Your task to perform on an android device: choose inbox layout in the gmail app Image 0: 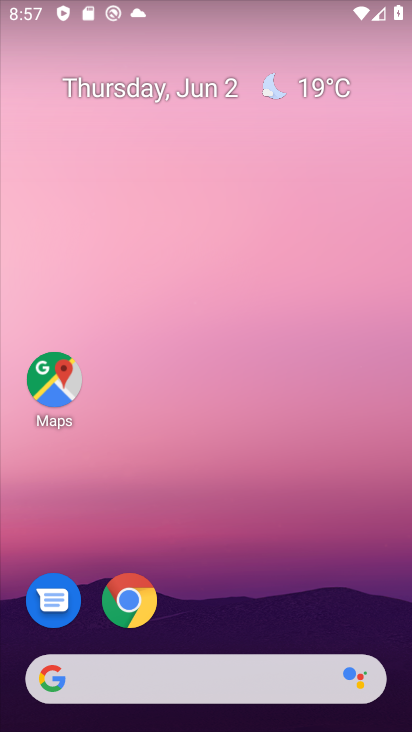
Step 0: drag from (216, 635) to (225, 250)
Your task to perform on an android device: choose inbox layout in the gmail app Image 1: 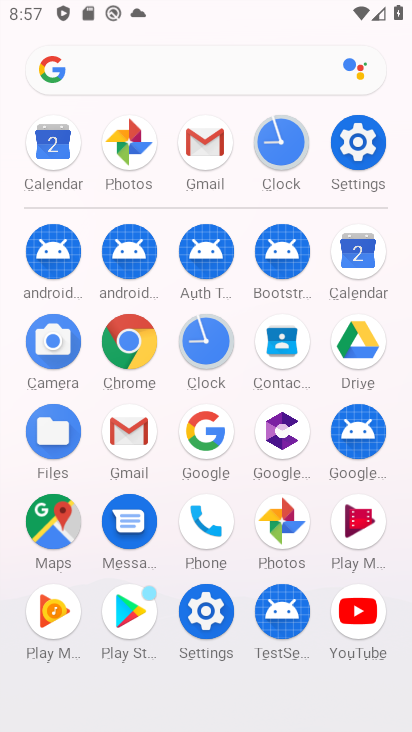
Step 1: click (201, 174)
Your task to perform on an android device: choose inbox layout in the gmail app Image 2: 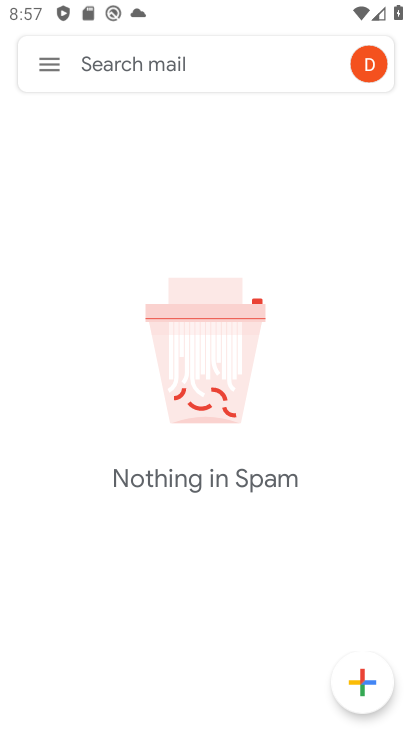
Step 2: click (60, 69)
Your task to perform on an android device: choose inbox layout in the gmail app Image 3: 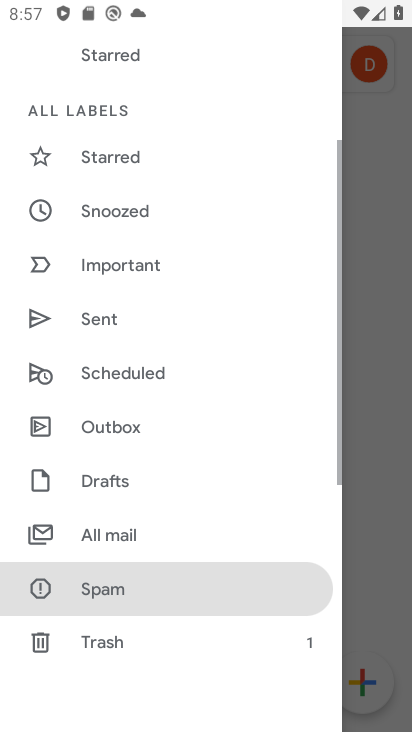
Step 3: drag from (161, 538) to (183, 254)
Your task to perform on an android device: choose inbox layout in the gmail app Image 4: 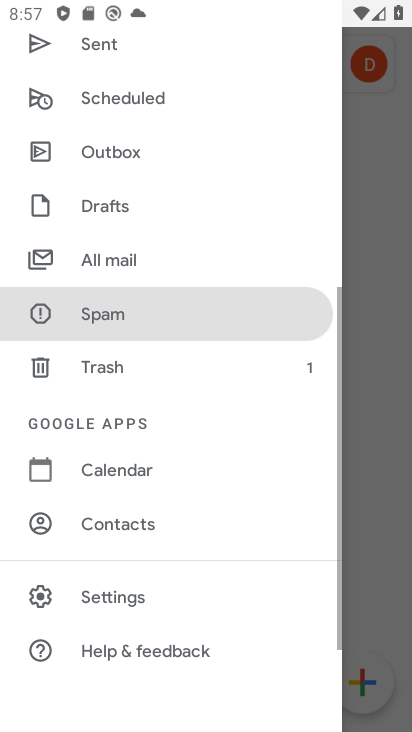
Step 4: click (183, 254)
Your task to perform on an android device: choose inbox layout in the gmail app Image 5: 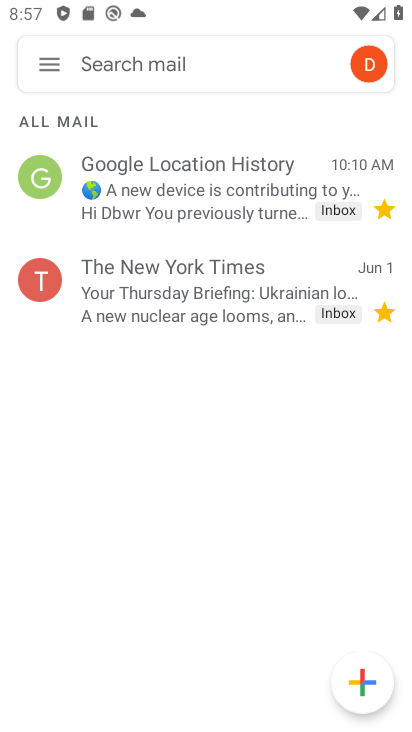
Step 5: click (43, 73)
Your task to perform on an android device: choose inbox layout in the gmail app Image 6: 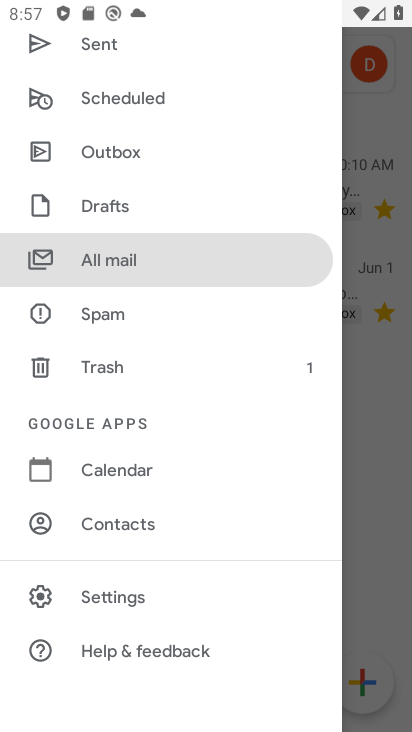
Step 6: click (158, 600)
Your task to perform on an android device: choose inbox layout in the gmail app Image 7: 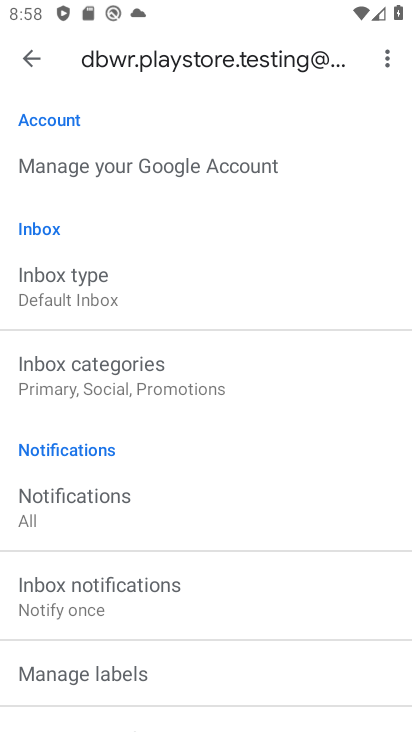
Step 7: click (170, 280)
Your task to perform on an android device: choose inbox layout in the gmail app Image 8: 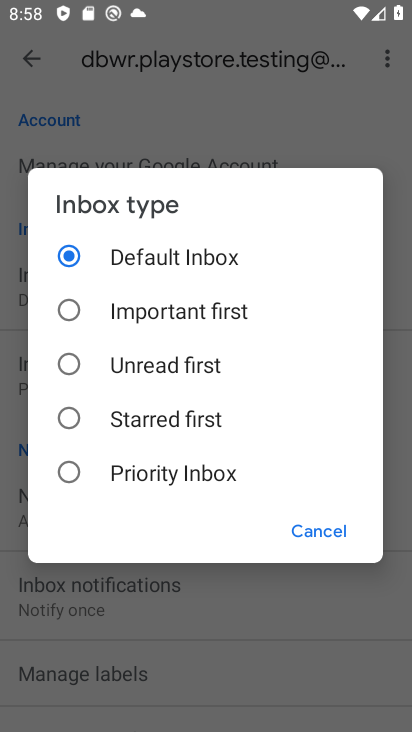
Step 8: click (133, 488)
Your task to perform on an android device: choose inbox layout in the gmail app Image 9: 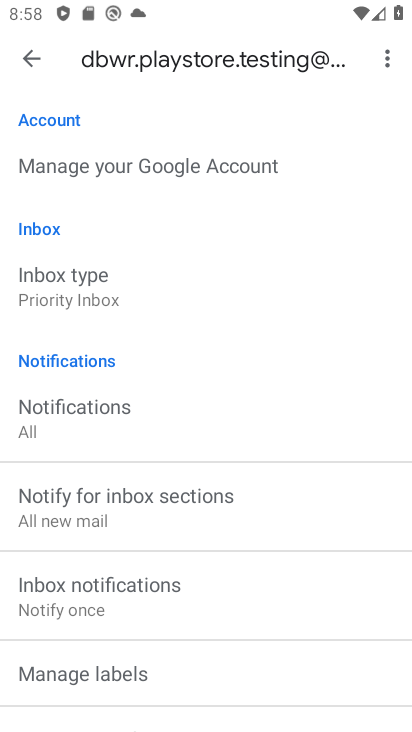
Step 9: task complete